Your task to perform on an android device: turn off improve location accuracy Image 0: 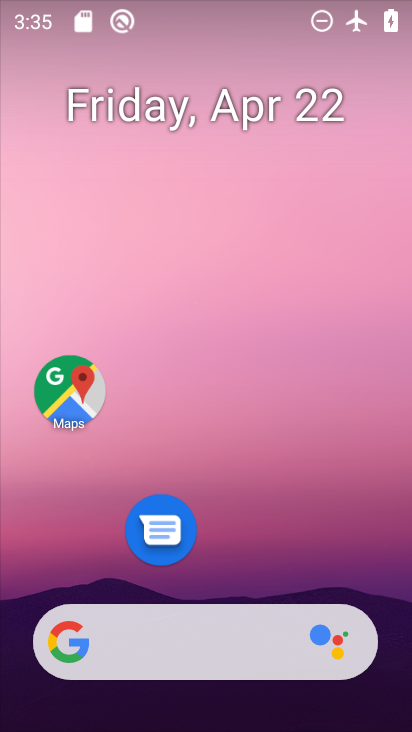
Step 0: drag from (250, 401) to (232, 0)
Your task to perform on an android device: turn off improve location accuracy Image 1: 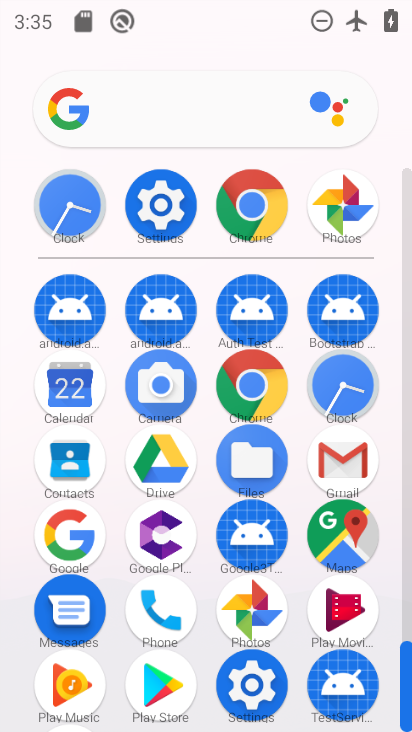
Step 1: click (160, 207)
Your task to perform on an android device: turn off improve location accuracy Image 2: 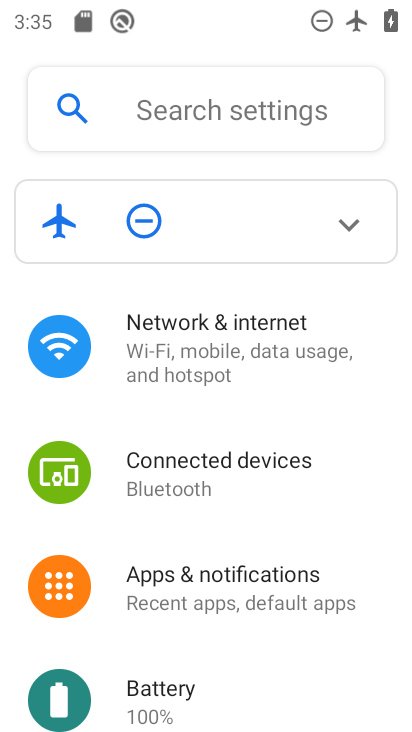
Step 2: drag from (173, 608) to (186, 163)
Your task to perform on an android device: turn off improve location accuracy Image 3: 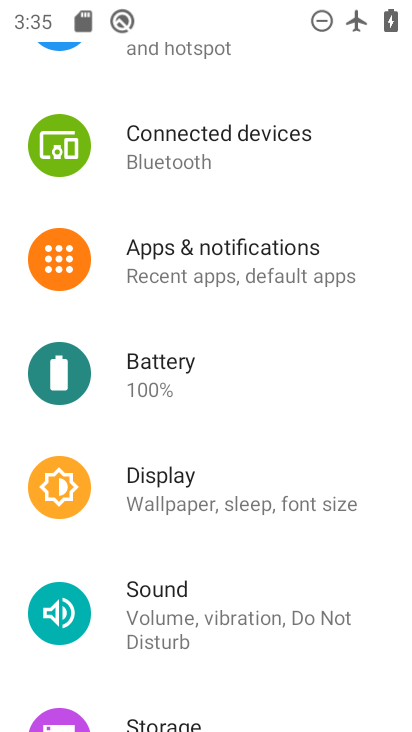
Step 3: drag from (196, 583) to (216, 184)
Your task to perform on an android device: turn off improve location accuracy Image 4: 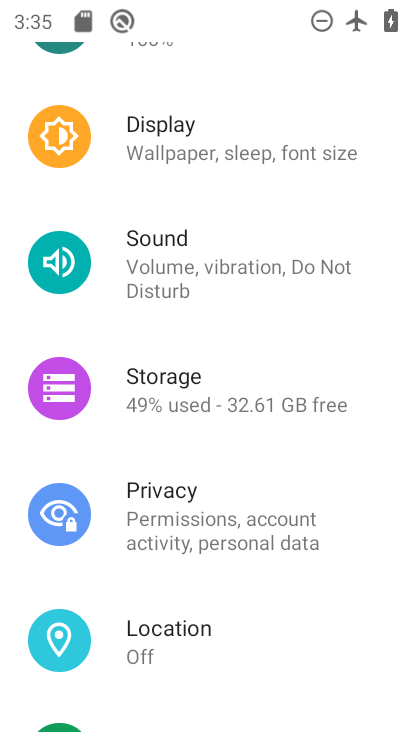
Step 4: click (175, 629)
Your task to perform on an android device: turn off improve location accuracy Image 5: 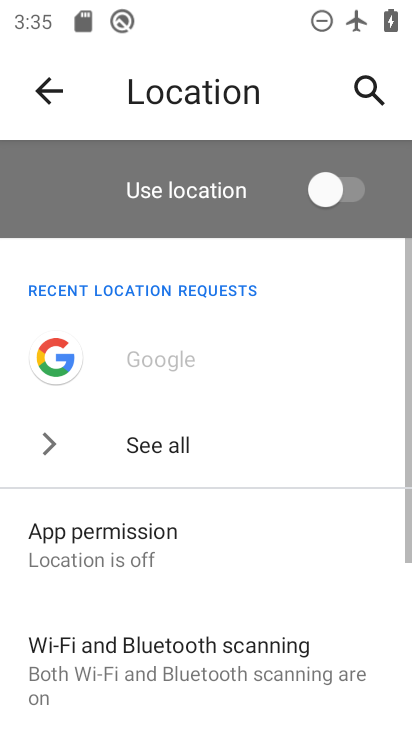
Step 5: drag from (219, 564) to (220, 165)
Your task to perform on an android device: turn off improve location accuracy Image 6: 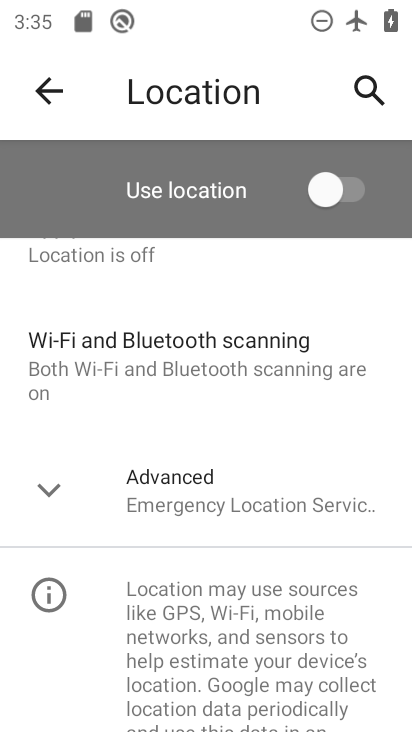
Step 6: click (75, 494)
Your task to perform on an android device: turn off improve location accuracy Image 7: 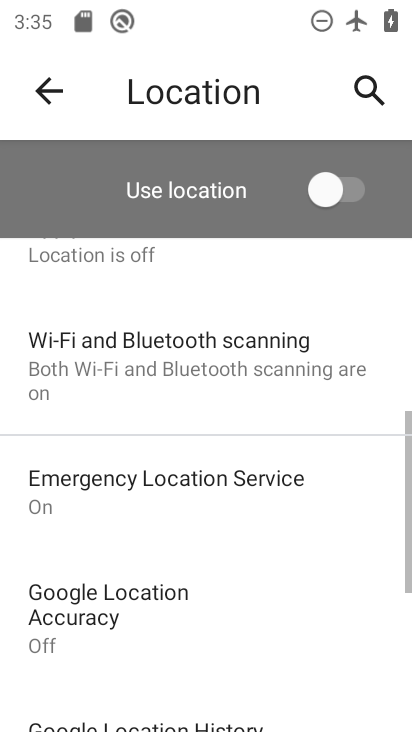
Step 7: drag from (164, 638) to (162, 249)
Your task to perform on an android device: turn off improve location accuracy Image 8: 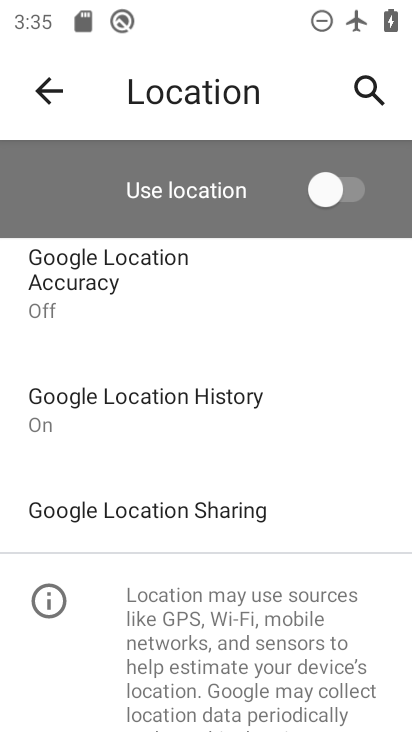
Step 8: click (90, 269)
Your task to perform on an android device: turn off improve location accuracy Image 9: 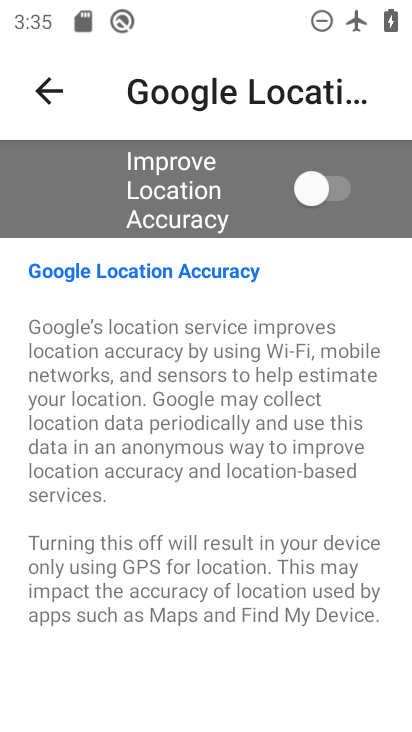
Step 9: task complete